Your task to perform on an android device: turn on priority inbox in the gmail app Image 0: 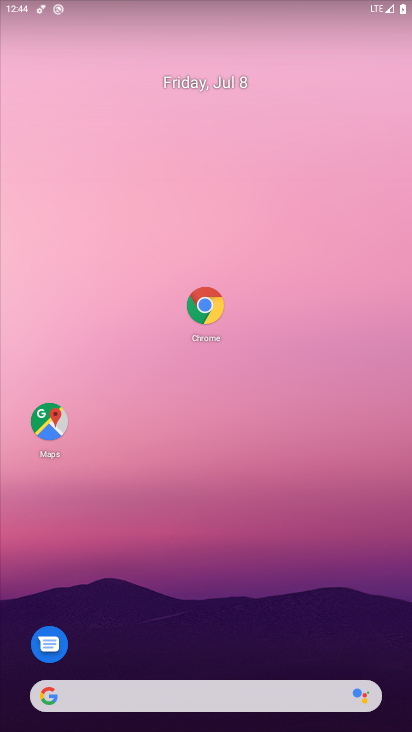
Step 0: drag from (197, 664) to (177, 214)
Your task to perform on an android device: turn on priority inbox in the gmail app Image 1: 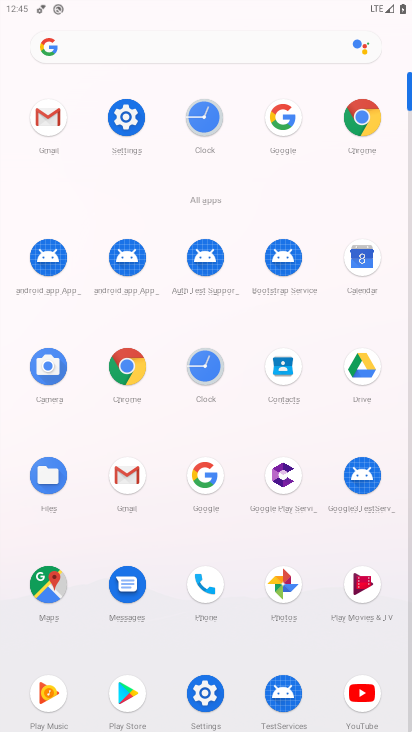
Step 1: click (51, 119)
Your task to perform on an android device: turn on priority inbox in the gmail app Image 2: 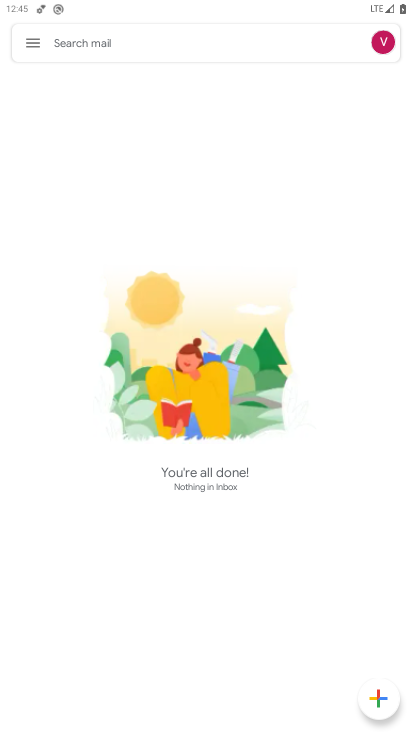
Step 2: click (28, 41)
Your task to perform on an android device: turn on priority inbox in the gmail app Image 3: 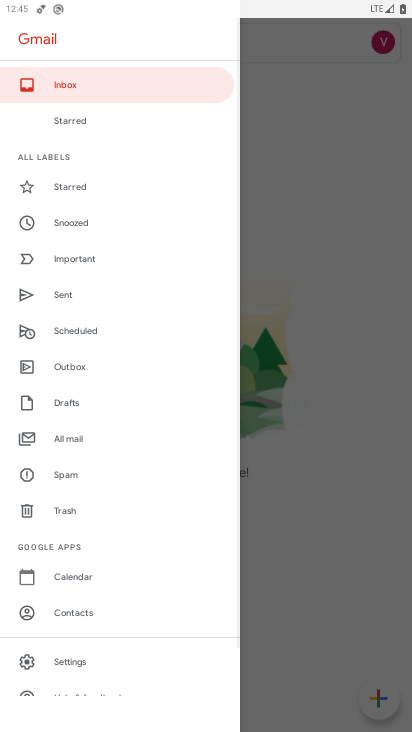
Step 3: click (73, 662)
Your task to perform on an android device: turn on priority inbox in the gmail app Image 4: 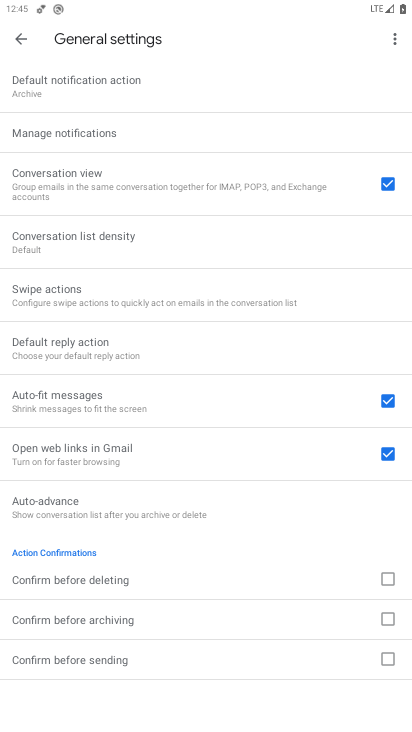
Step 4: click (20, 35)
Your task to perform on an android device: turn on priority inbox in the gmail app Image 5: 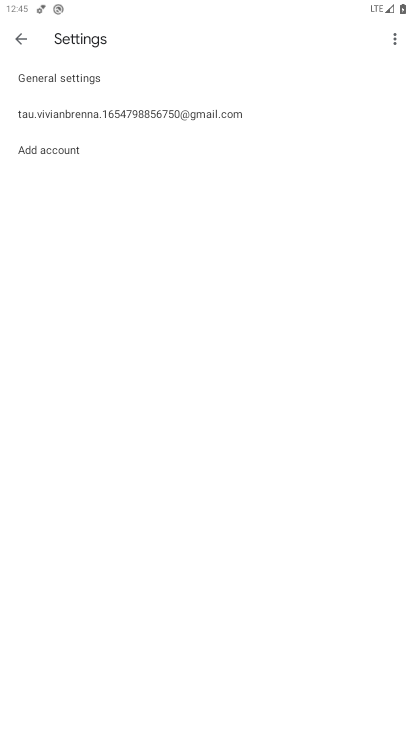
Step 5: click (64, 107)
Your task to perform on an android device: turn on priority inbox in the gmail app Image 6: 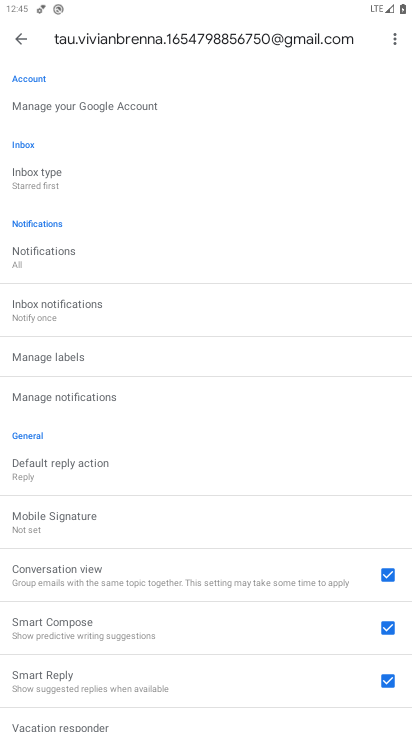
Step 6: click (43, 181)
Your task to perform on an android device: turn on priority inbox in the gmail app Image 7: 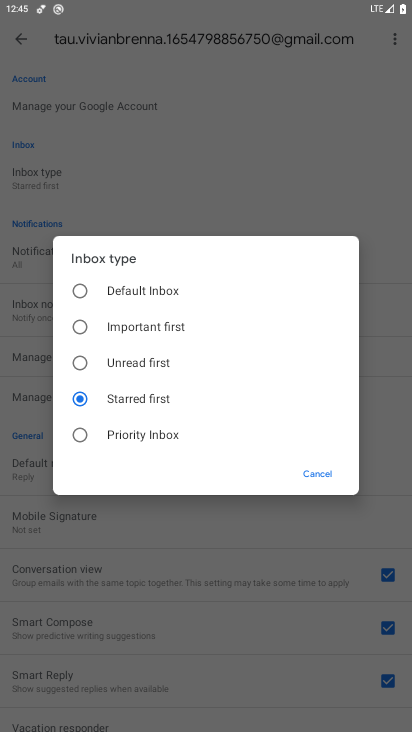
Step 7: click (136, 434)
Your task to perform on an android device: turn on priority inbox in the gmail app Image 8: 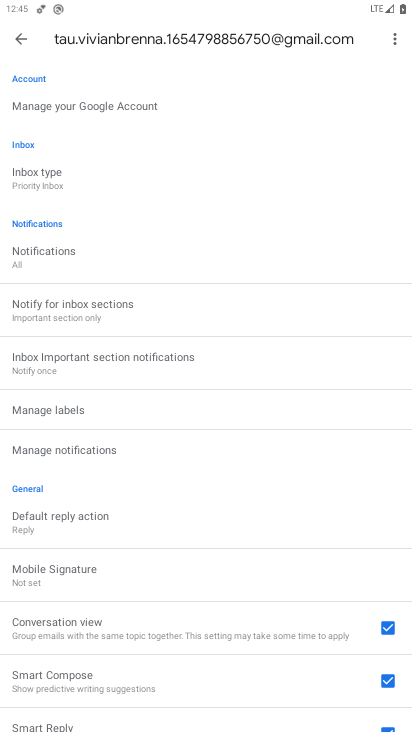
Step 8: task complete